Your task to perform on an android device: open app "TextNow: Call + Text Unlimited" (install if not already installed) Image 0: 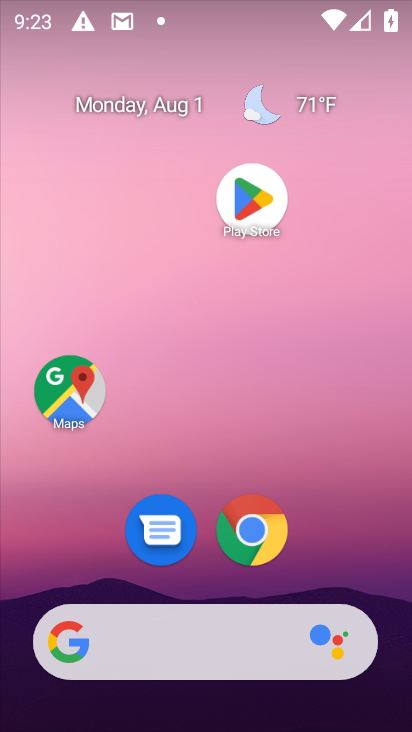
Step 0: click (276, 183)
Your task to perform on an android device: open app "TextNow: Call + Text Unlimited" (install if not already installed) Image 1: 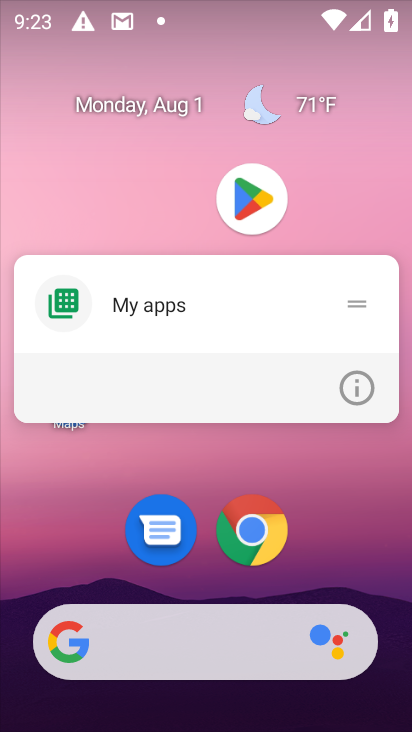
Step 1: click (276, 183)
Your task to perform on an android device: open app "TextNow: Call + Text Unlimited" (install if not already installed) Image 2: 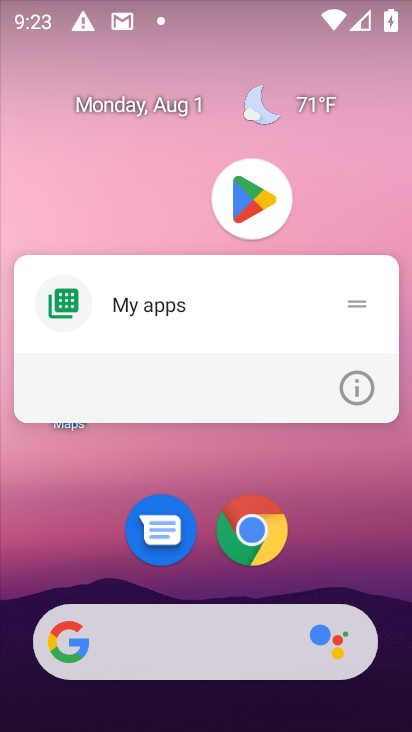
Step 2: click (276, 183)
Your task to perform on an android device: open app "TextNow: Call + Text Unlimited" (install if not already installed) Image 3: 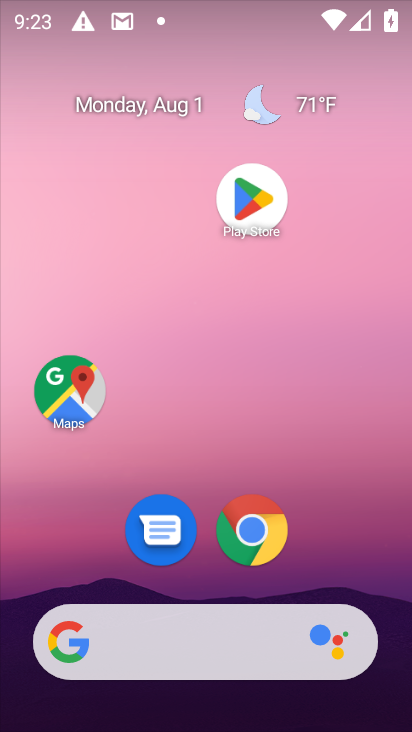
Step 3: click (276, 183)
Your task to perform on an android device: open app "TextNow: Call + Text Unlimited" (install if not already installed) Image 4: 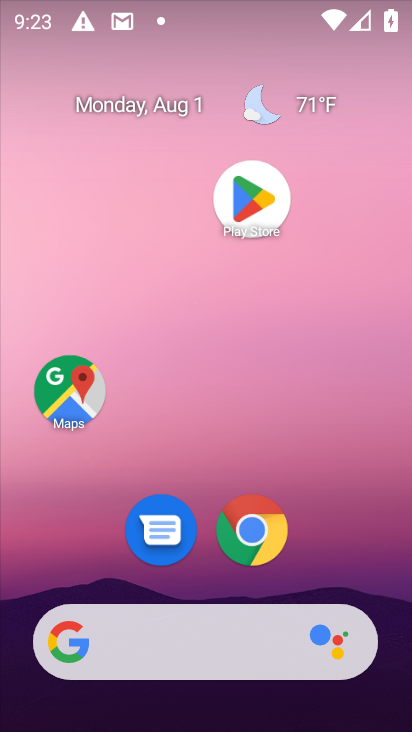
Step 4: click (276, 183)
Your task to perform on an android device: open app "TextNow: Call + Text Unlimited" (install if not already installed) Image 5: 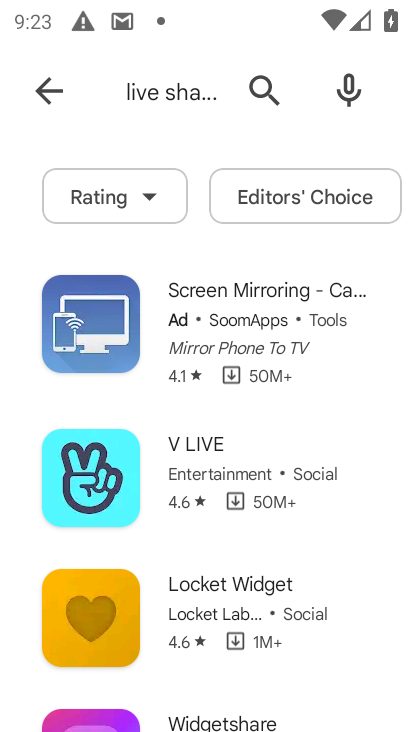
Step 5: click (270, 219)
Your task to perform on an android device: open app "TextNow: Call + Text Unlimited" (install if not already installed) Image 6: 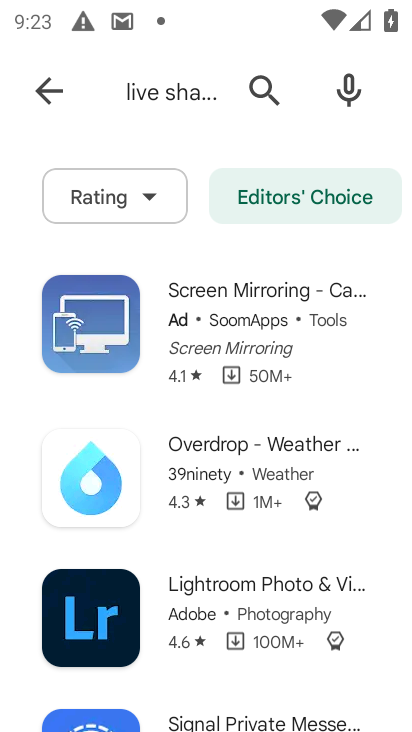
Step 6: click (233, 84)
Your task to perform on an android device: open app "TextNow: Call + Text Unlimited" (install if not already installed) Image 7: 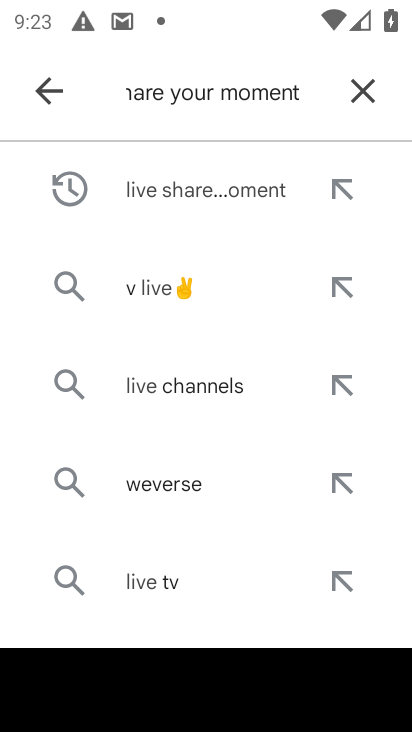
Step 7: click (365, 89)
Your task to perform on an android device: open app "TextNow: Call + Text Unlimited" (install if not already installed) Image 8: 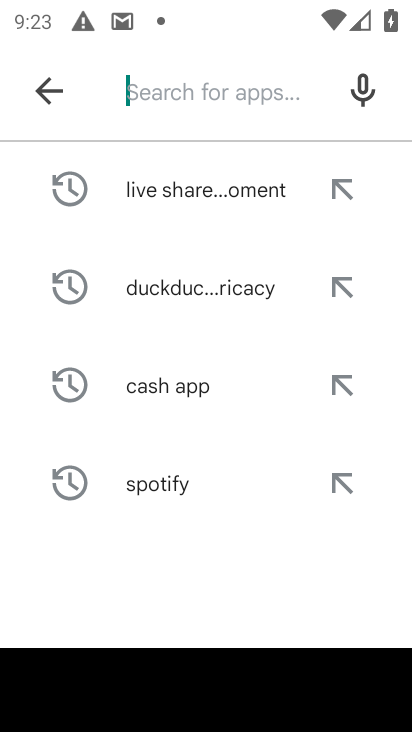
Step 8: type "TextNow: Call + Text Unlimited"
Your task to perform on an android device: open app "TextNow: Call + Text Unlimited" (install if not already installed) Image 9: 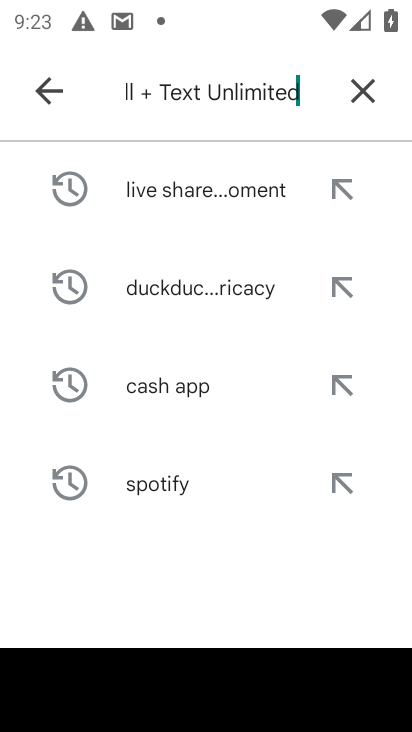
Step 9: type ""
Your task to perform on an android device: open app "TextNow: Call + Text Unlimited" (install if not already installed) Image 10: 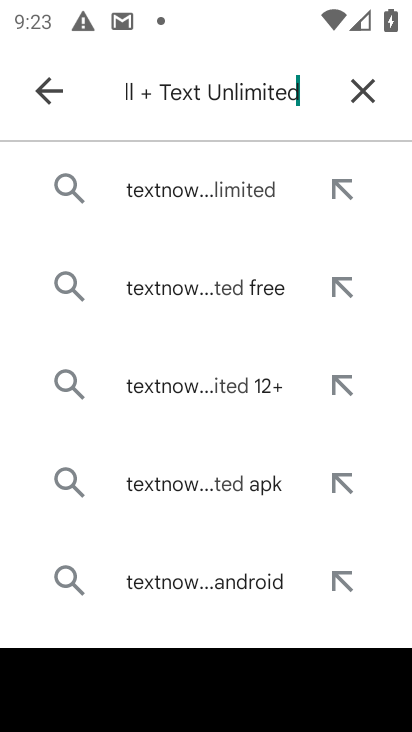
Step 10: press enter
Your task to perform on an android device: open app "TextNow: Call + Text Unlimited" (install if not already installed) Image 11: 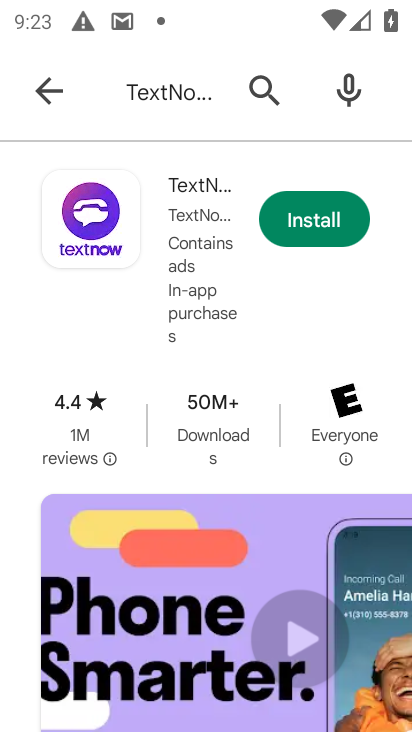
Step 11: click (300, 208)
Your task to perform on an android device: open app "TextNow: Call + Text Unlimited" (install if not already installed) Image 12: 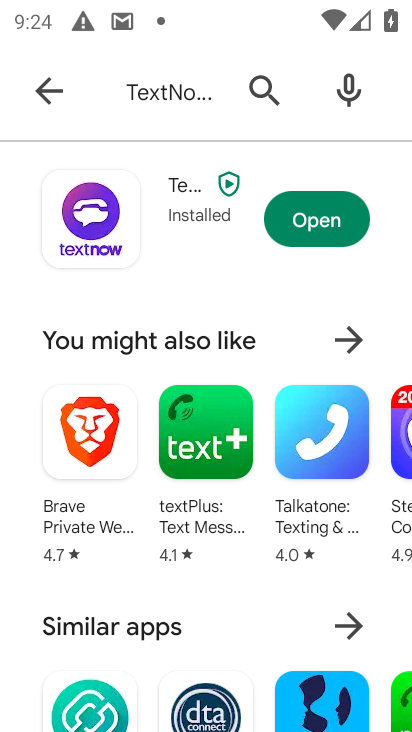
Step 12: click (334, 215)
Your task to perform on an android device: open app "TextNow: Call + Text Unlimited" (install if not already installed) Image 13: 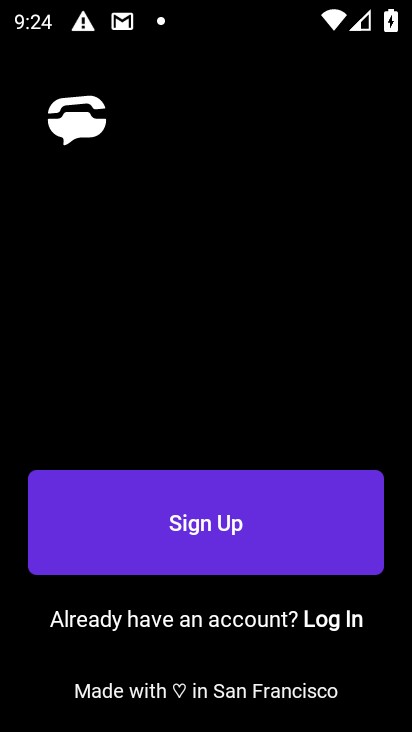
Step 13: task complete